Your task to perform on an android device: clear all cookies in the chrome app Image 0: 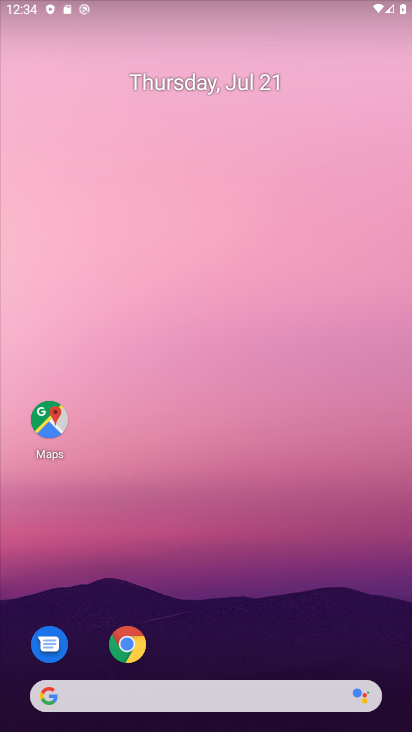
Step 0: click (219, 66)
Your task to perform on an android device: clear all cookies in the chrome app Image 1: 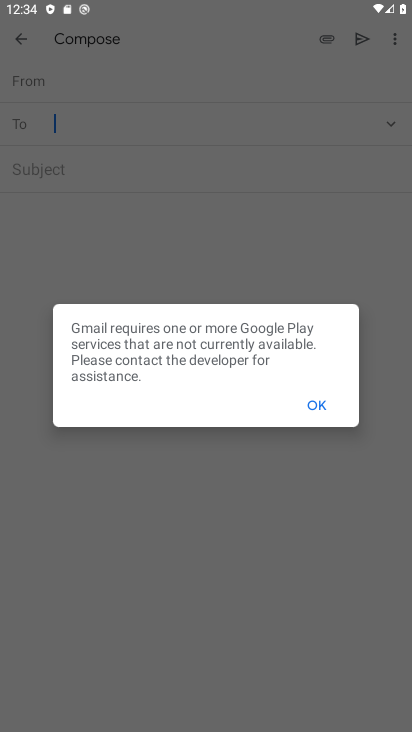
Step 1: press home button
Your task to perform on an android device: clear all cookies in the chrome app Image 2: 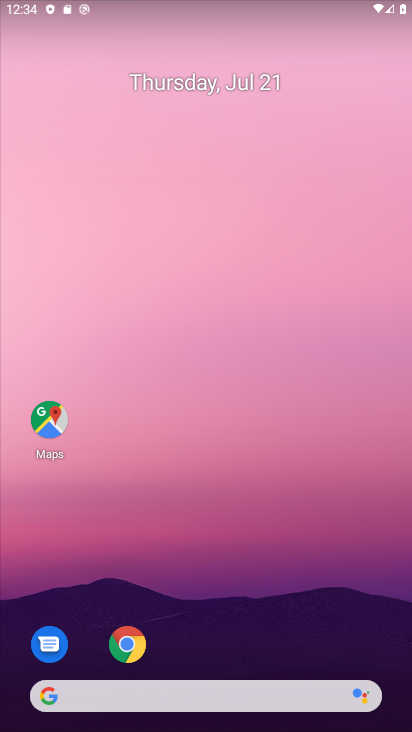
Step 2: drag from (256, 584) to (290, 112)
Your task to perform on an android device: clear all cookies in the chrome app Image 3: 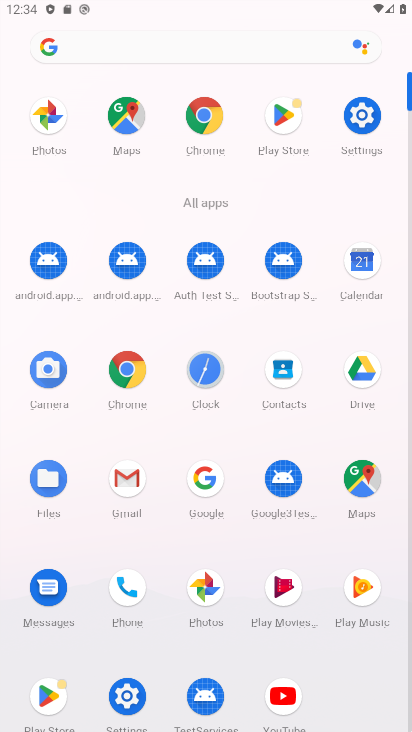
Step 3: click (126, 376)
Your task to perform on an android device: clear all cookies in the chrome app Image 4: 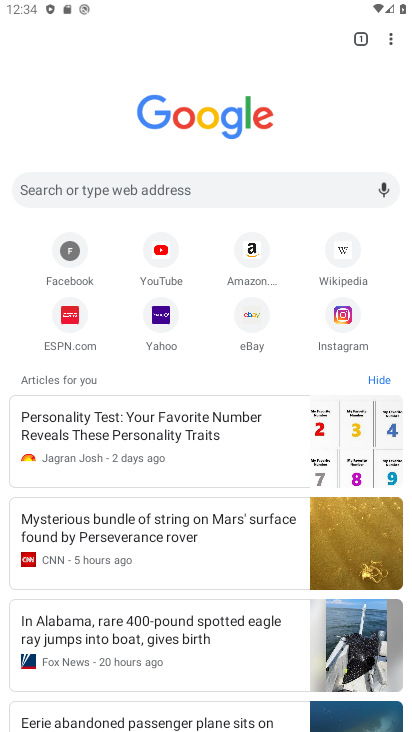
Step 4: drag from (390, 41) to (251, 331)
Your task to perform on an android device: clear all cookies in the chrome app Image 5: 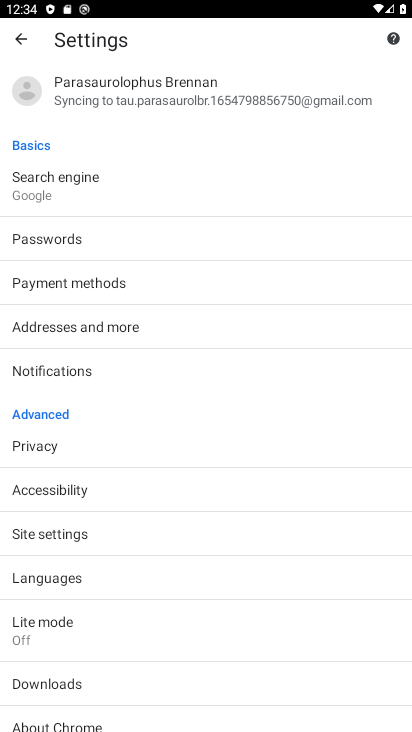
Step 5: click (32, 433)
Your task to perform on an android device: clear all cookies in the chrome app Image 6: 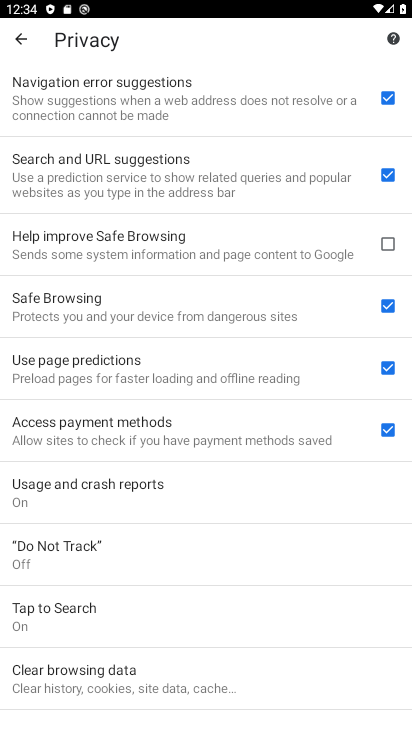
Step 6: drag from (240, 614) to (257, 168)
Your task to perform on an android device: clear all cookies in the chrome app Image 7: 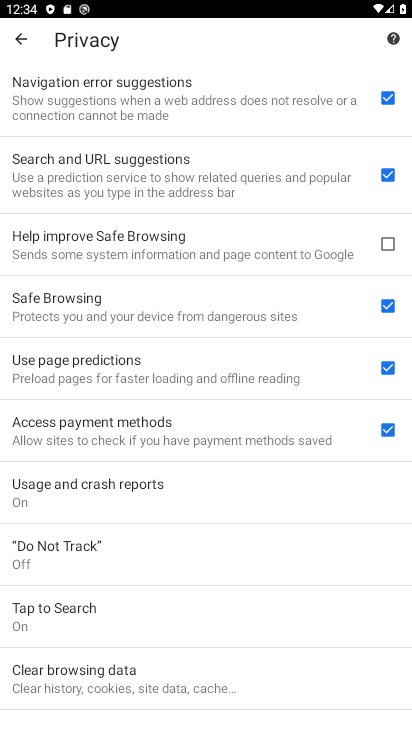
Step 7: click (61, 675)
Your task to perform on an android device: clear all cookies in the chrome app Image 8: 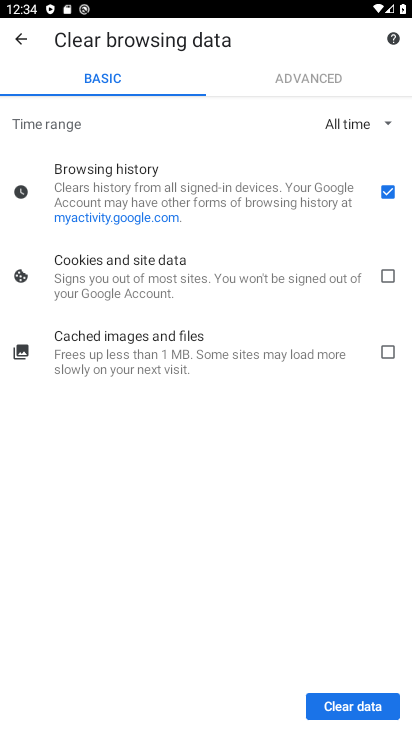
Step 8: click (304, 276)
Your task to perform on an android device: clear all cookies in the chrome app Image 9: 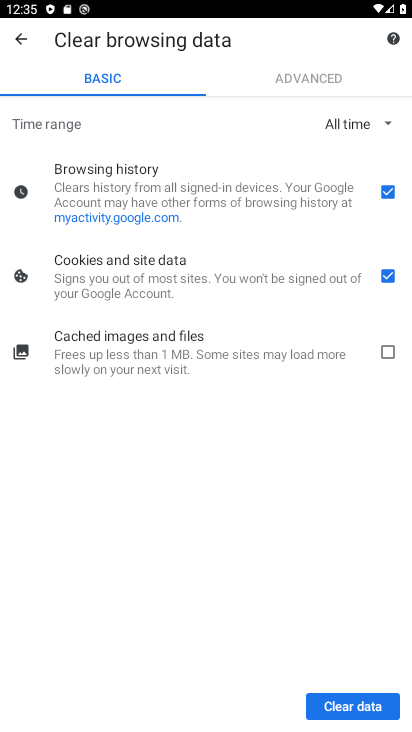
Step 9: click (364, 707)
Your task to perform on an android device: clear all cookies in the chrome app Image 10: 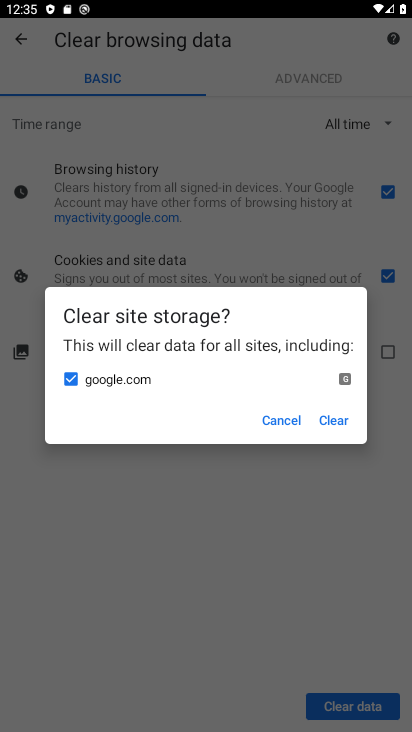
Step 10: click (330, 421)
Your task to perform on an android device: clear all cookies in the chrome app Image 11: 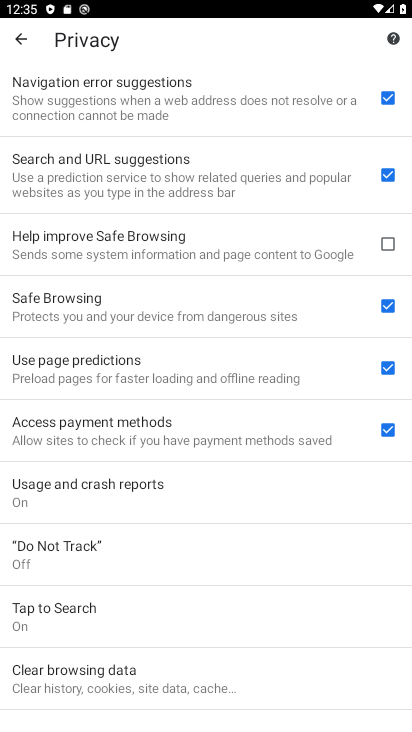
Step 11: task complete